Your task to perform on an android device: Go to location settings Image 0: 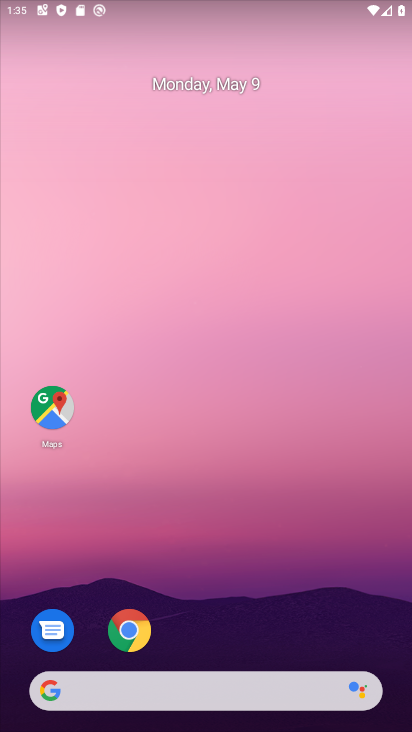
Step 0: drag from (266, 711) to (293, 150)
Your task to perform on an android device: Go to location settings Image 1: 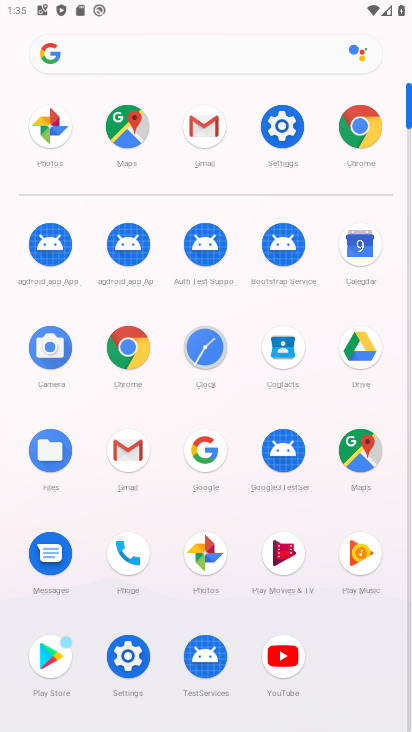
Step 1: click (125, 665)
Your task to perform on an android device: Go to location settings Image 2: 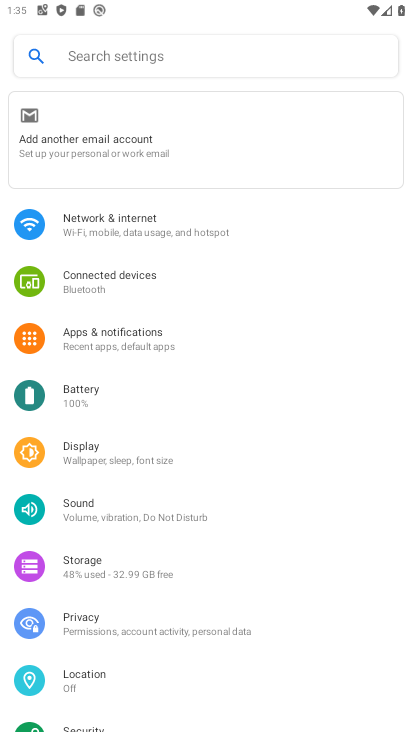
Step 2: click (115, 670)
Your task to perform on an android device: Go to location settings Image 3: 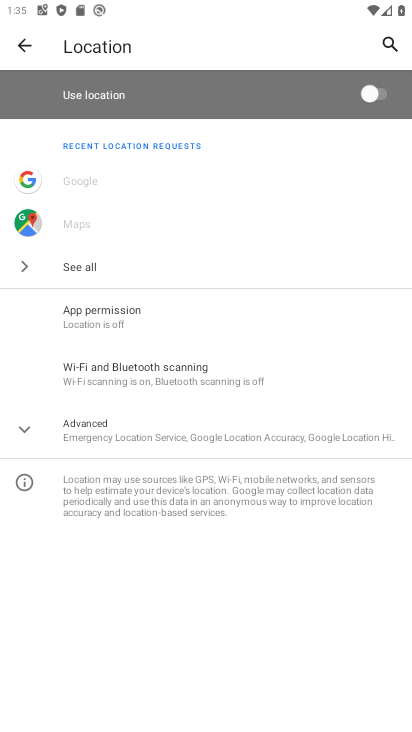
Step 3: click (50, 427)
Your task to perform on an android device: Go to location settings Image 4: 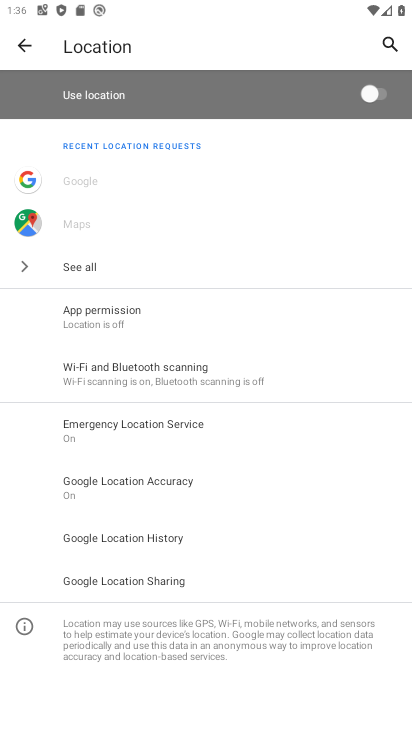
Step 4: task complete